Your task to perform on an android device: Go to Wikipedia Image 0: 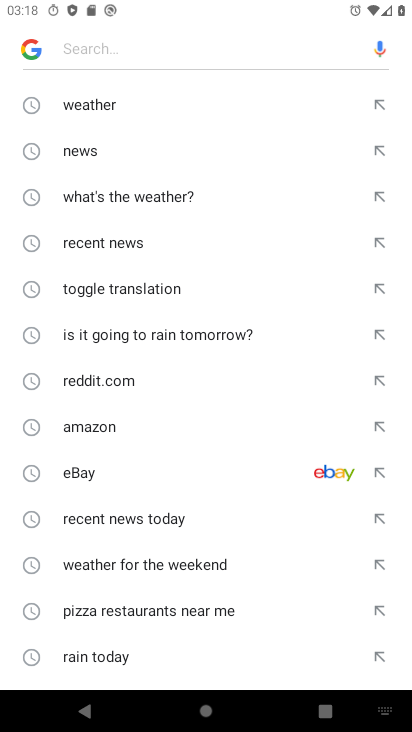
Step 0: press home button
Your task to perform on an android device: Go to Wikipedia Image 1: 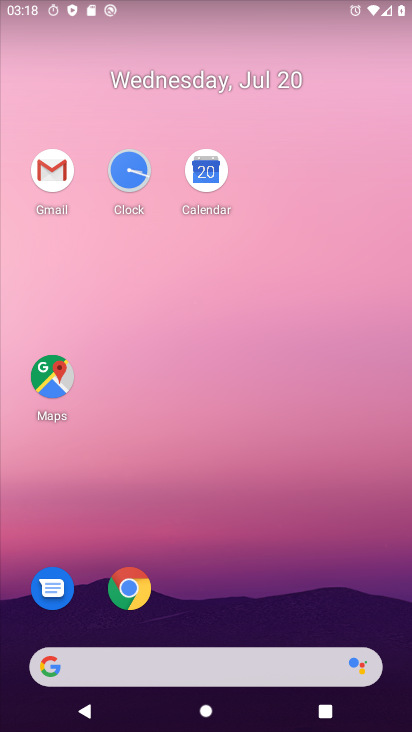
Step 1: click (138, 582)
Your task to perform on an android device: Go to Wikipedia Image 2: 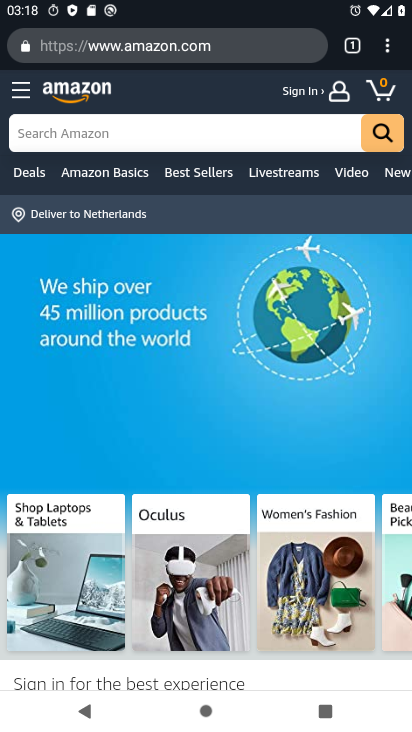
Step 2: click (361, 42)
Your task to perform on an android device: Go to Wikipedia Image 3: 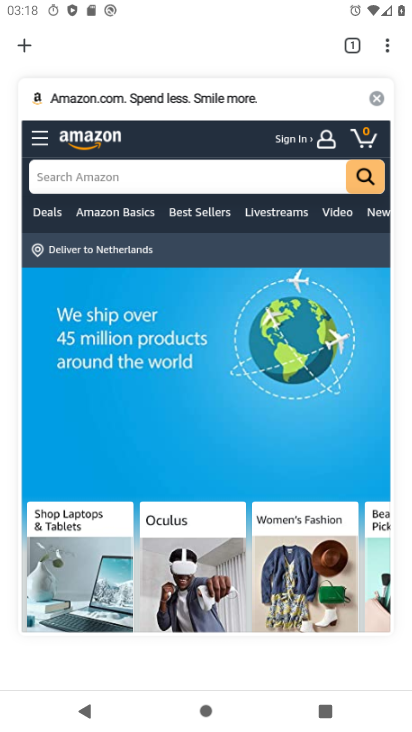
Step 3: click (24, 46)
Your task to perform on an android device: Go to Wikipedia Image 4: 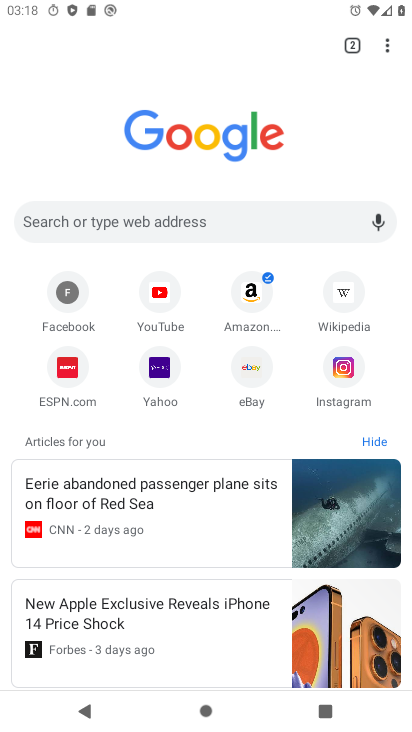
Step 4: click (339, 290)
Your task to perform on an android device: Go to Wikipedia Image 5: 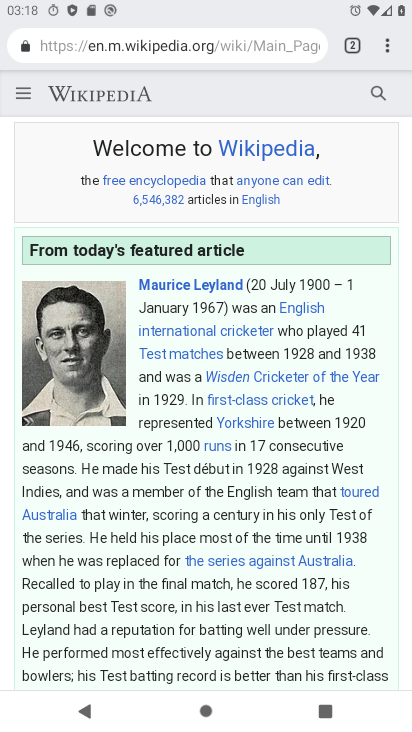
Step 5: task complete